Your task to perform on an android device: What's on my calendar today? Image 0: 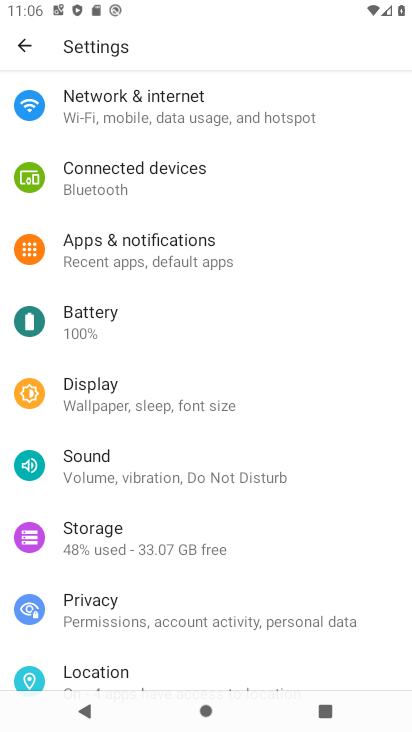
Step 0: press home button
Your task to perform on an android device: What's on my calendar today? Image 1: 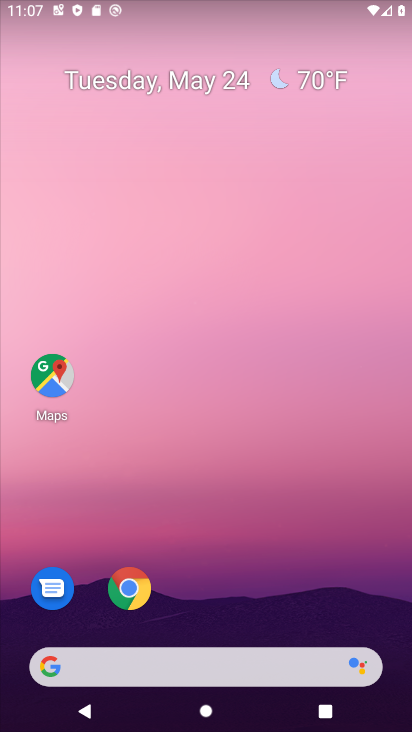
Step 1: drag from (214, 618) to (210, 8)
Your task to perform on an android device: What's on my calendar today? Image 2: 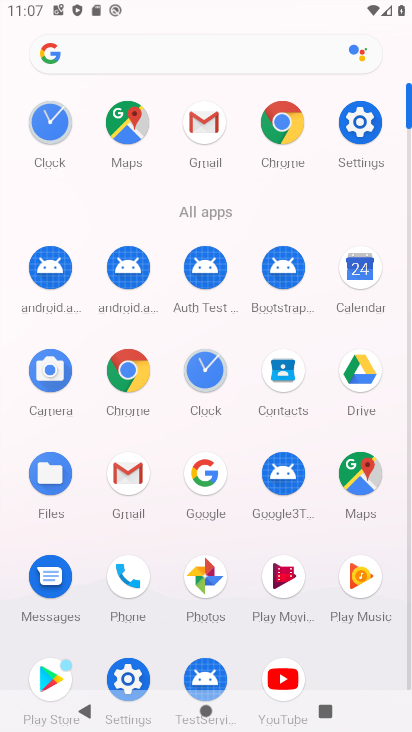
Step 2: click (353, 259)
Your task to perform on an android device: What's on my calendar today? Image 3: 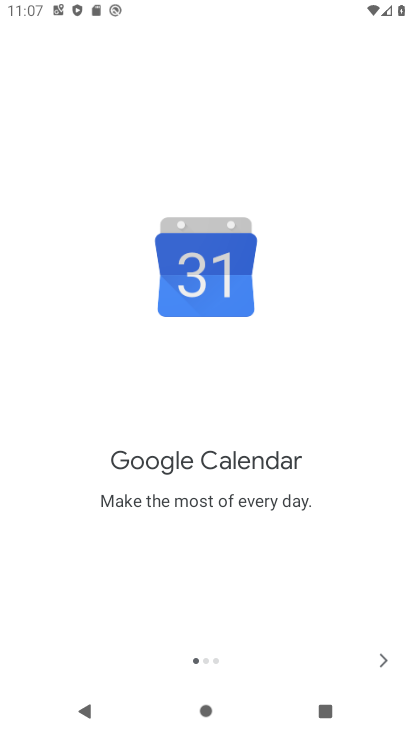
Step 3: click (381, 657)
Your task to perform on an android device: What's on my calendar today? Image 4: 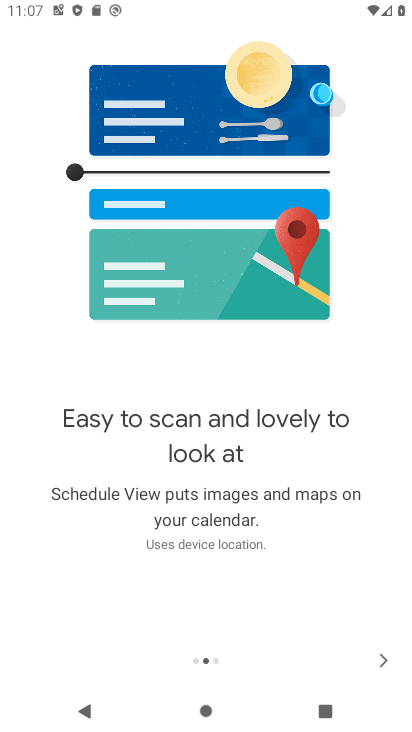
Step 4: click (382, 655)
Your task to perform on an android device: What's on my calendar today? Image 5: 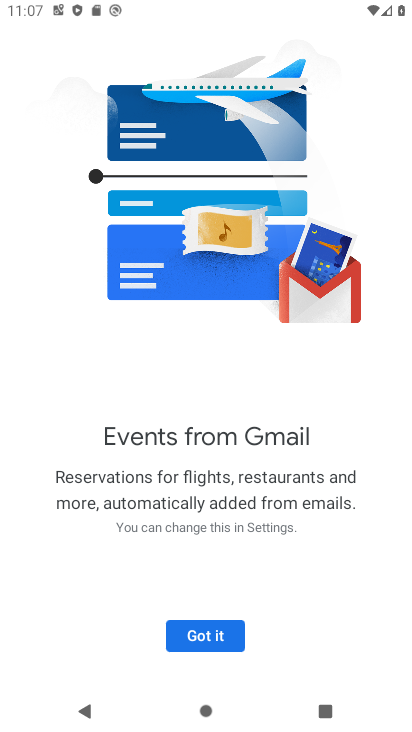
Step 5: click (205, 627)
Your task to perform on an android device: What's on my calendar today? Image 6: 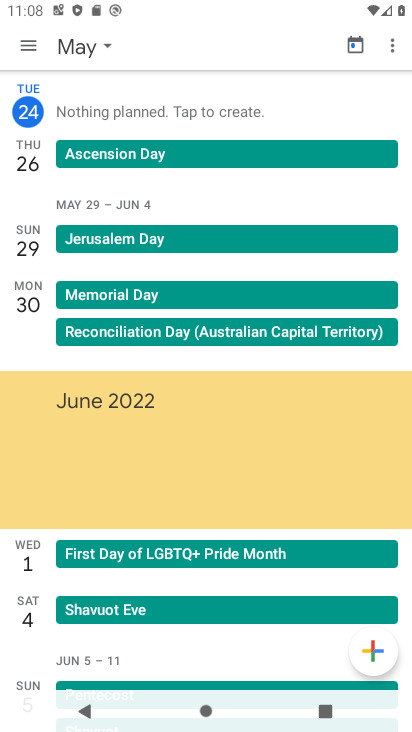
Step 6: click (39, 116)
Your task to perform on an android device: What's on my calendar today? Image 7: 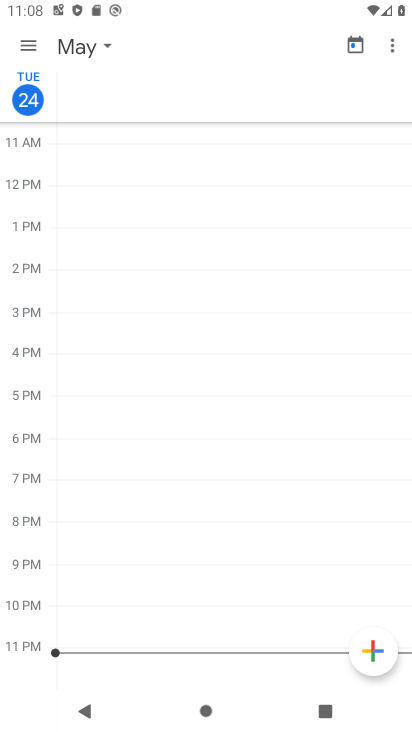
Step 7: task complete